Your task to perform on an android device: change the clock display to analog Image 0: 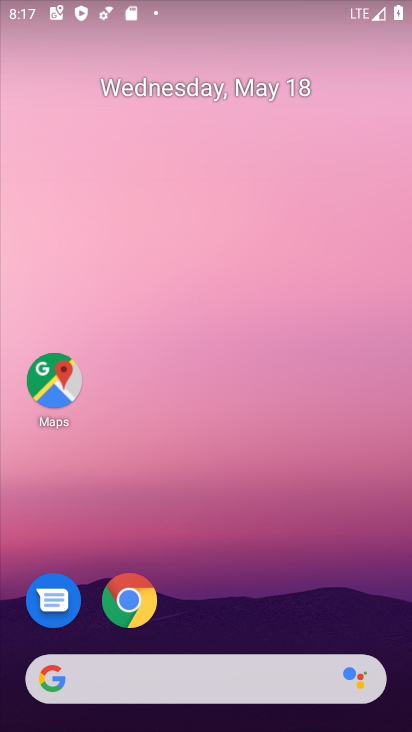
Step 0: drag from (251, 611) to (304, 91)
Your task to perform on an android device: change the clock display to analog Image 1: 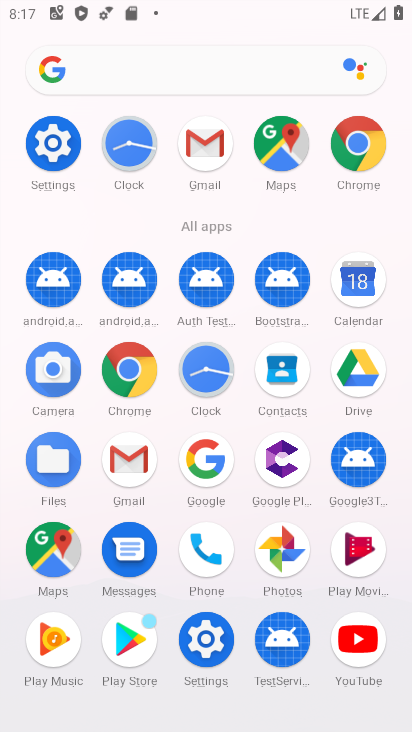
Step 1: click (129, 134)
Your task to perform on an android device: change the clock display to analog Image 2: 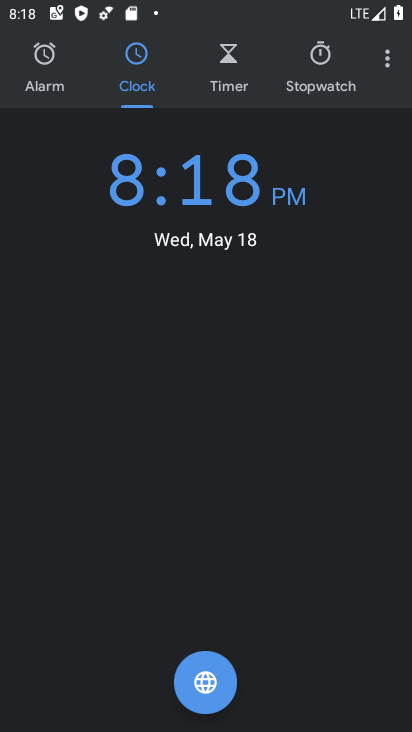
Step 2: click (380, 59)
Your task to perform on an android device: change the clock display to analog Image 3: 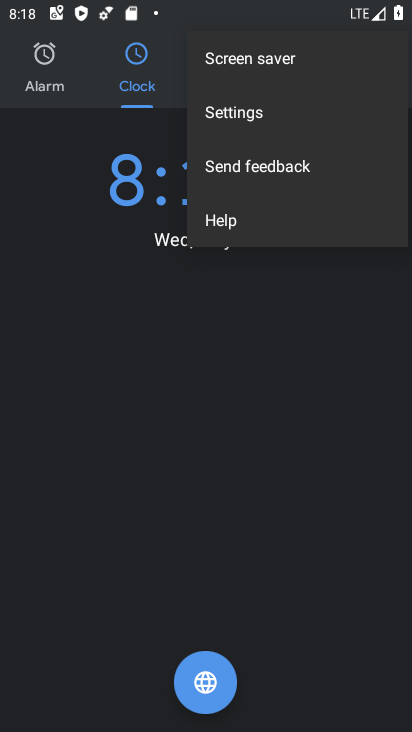
Step 3: click (272, 106)
Your task to perform on an android device: change the clock display to analog Image 4: 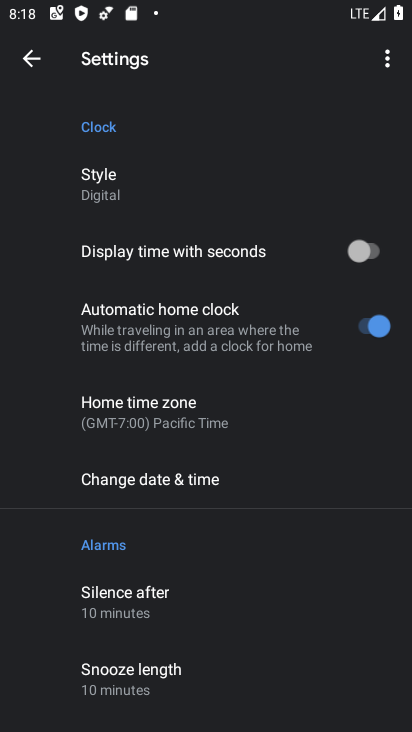
Step 4: click (127, 189)
Your task to perform on an android device: change the clock display to analog Image 5: 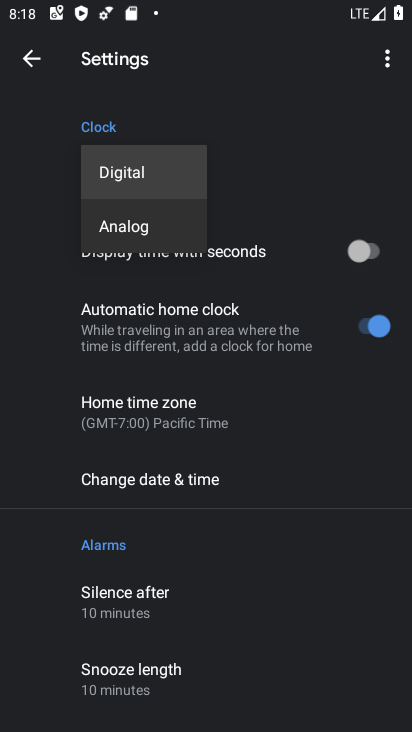
Step 5: click (119, 232)
Your task to perform on an android device: change the clock display to analog Image 6: 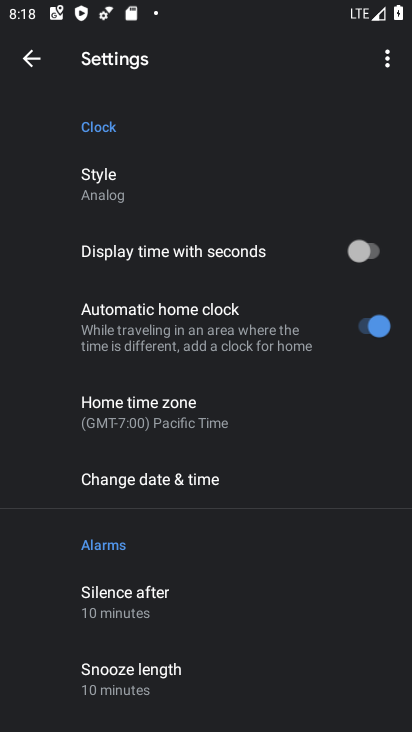
Step 6: task complete